Your task to perform on an android device: check storage Image 0: 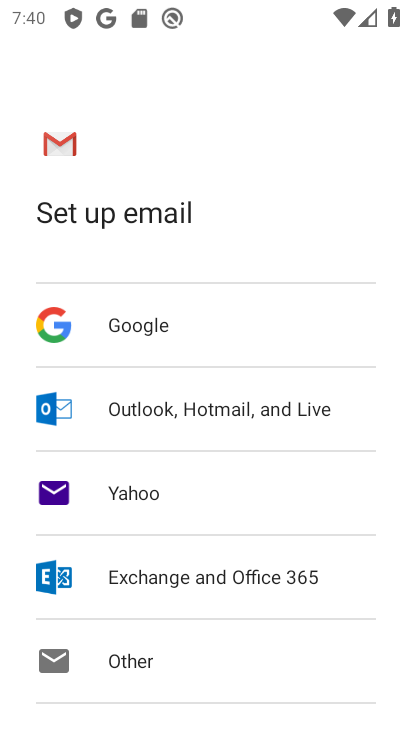
Step 0: press home button
Your task to perform on an android device: check storage Image 1: 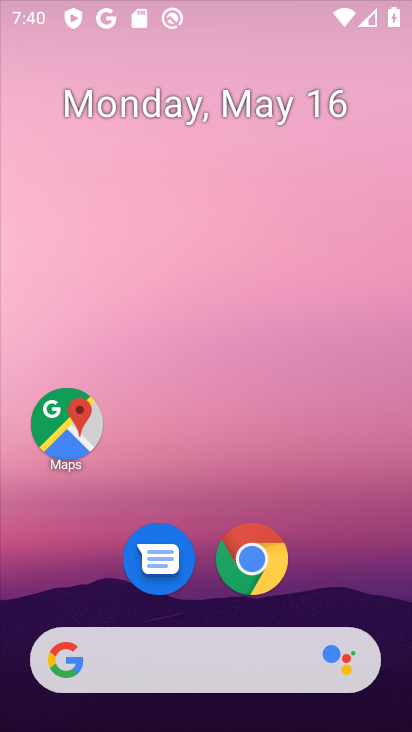
Step 1: drag from (327, 617) to (343, 263)
Your task to perform on an android device: check storage Image 2: 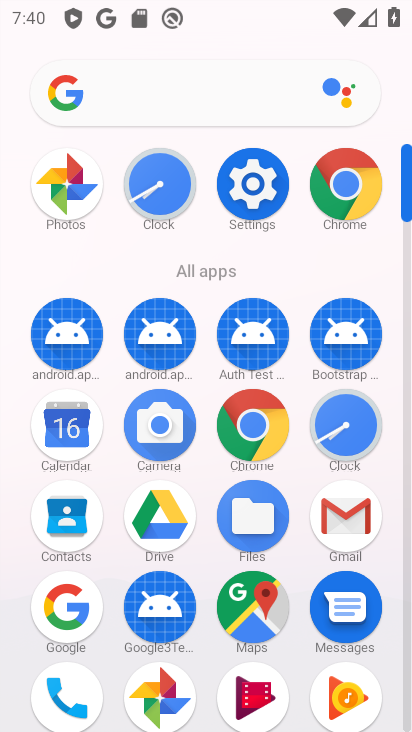
Step 2: click (227, 171)
Your task to perform on an android device: check storage Image 3: 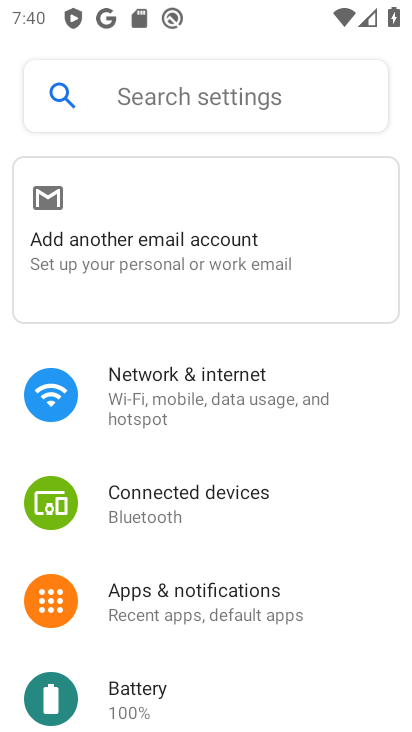
Step 3: drag from (246, 704) to (273, 324)
Your task to perform on an android device: check storage Image 4: 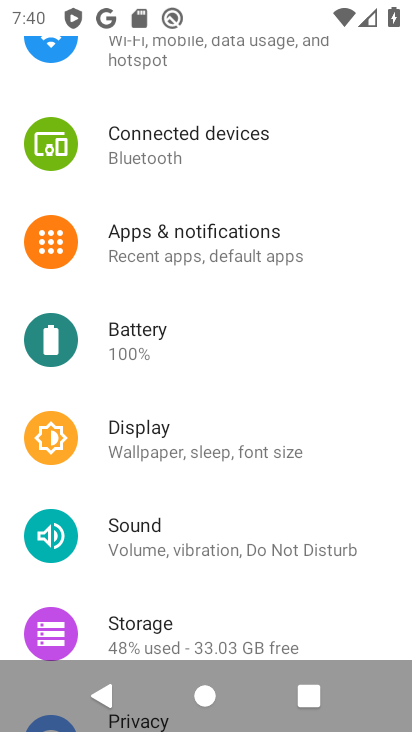
Step 4: drag from (300, 558) to (326, 175)
Your task to perform on an android device: check storage Image 5: 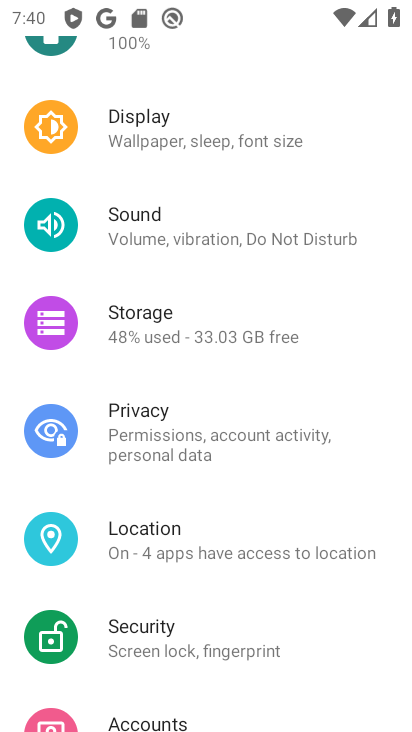
Step 5: drag from (304, 573) to (368, 93)
Your task to perform on an android device: check storage Image 6: 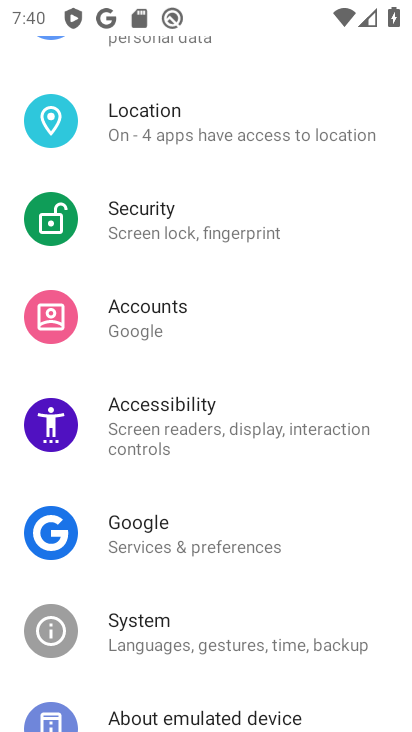
Step 6: drag from (265, 573) to (315, 202)
Your task to perform on an android device: check storage Image 7: 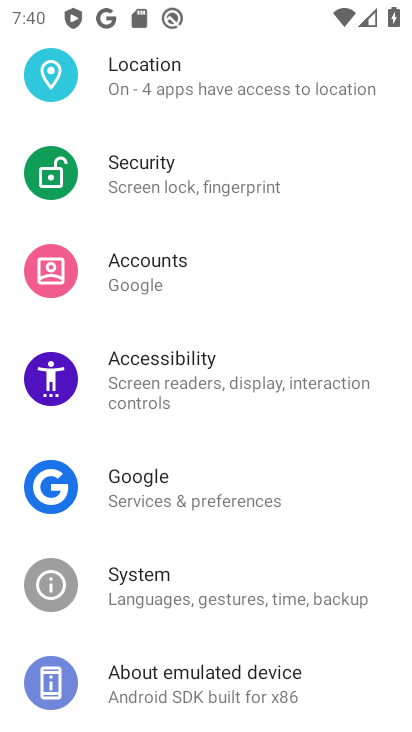
Step 7: drag from (326, 172) to (250, 627)
Your task to perform on an android device: check storage Image 8: 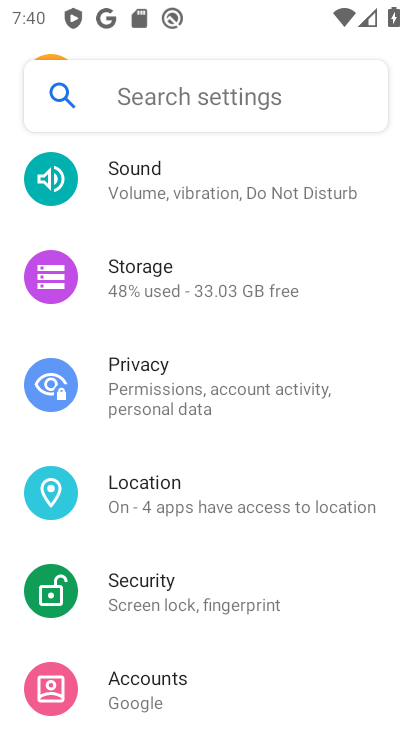
Step 8: drag from (309, 304) to (272, 624)
Your task to perform on an android device: check storage Image 9: 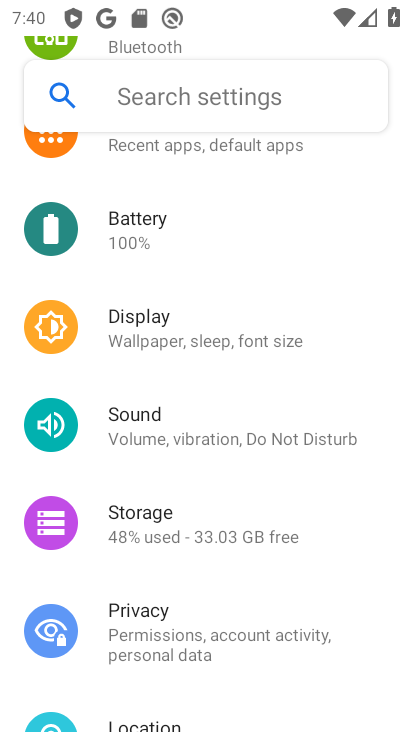
Step 9: drag from (326, 267) to (270, 621)
Your task to perform on an android device: check storage Image 10: 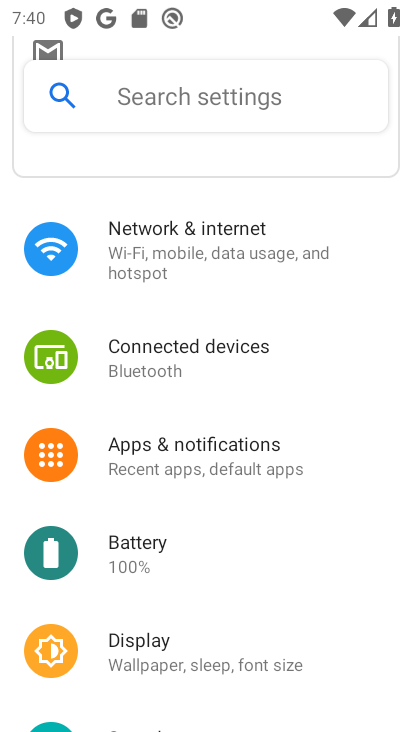
Step 10: drag from (287, 594) to (382, 294)
Your task to perform on an android device: check storage Image 11: 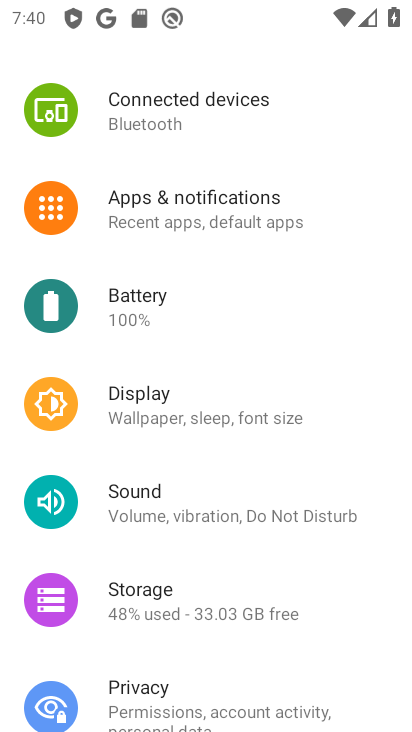
Step 11: click (210, 588)
Your task to perform on an android device: check storage Image 12: 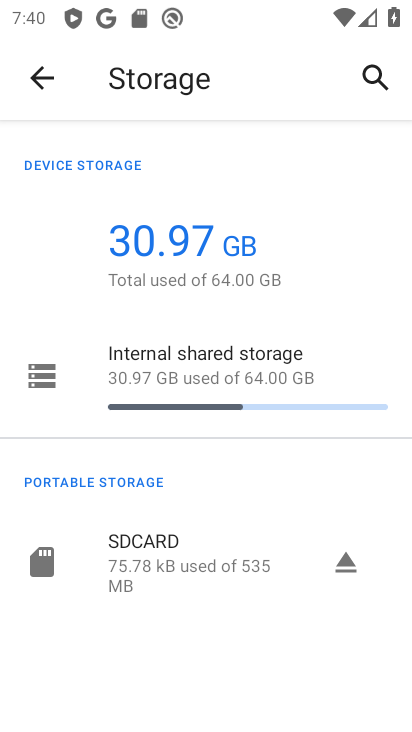
Step 12: click (29, 377)
Your task to perform on an android device: check storage Image 13: 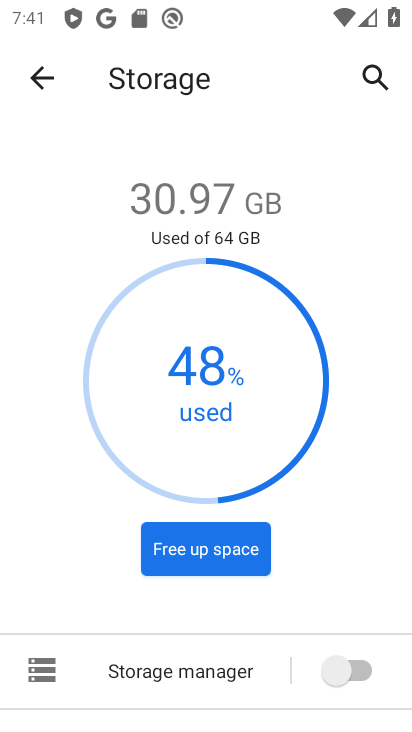
Step 13: task complete